Your task to perform on an android device: turn off sleep mode Image 0: 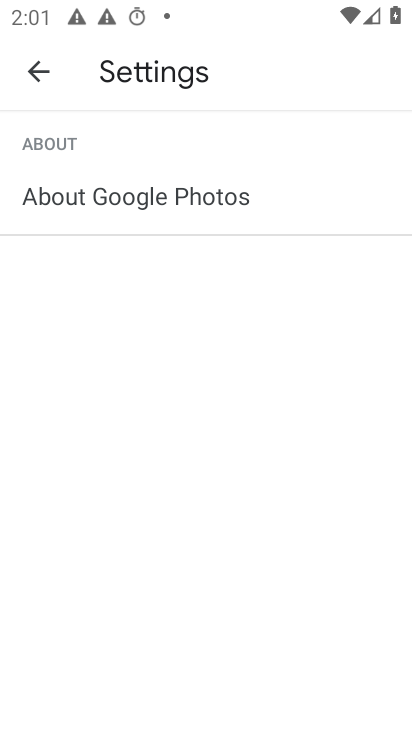
Step 0: press home button
Your task to perform on an android device: turn off sleep mode Image 1: 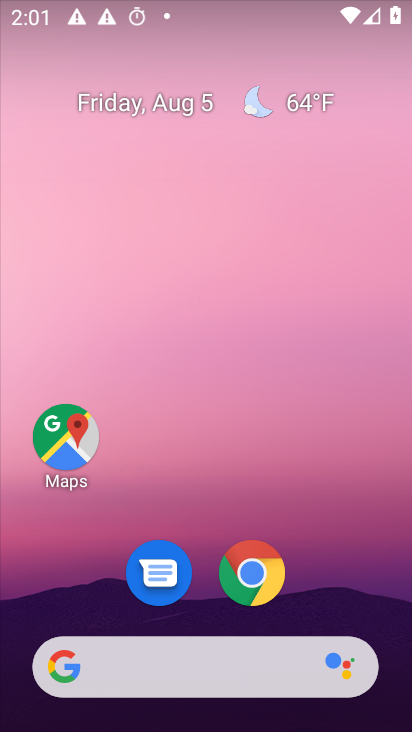
Step 1: drag from (342, 591) to (333, 162)
Your task to perform on an android device: turn off sleep mode Image 2: 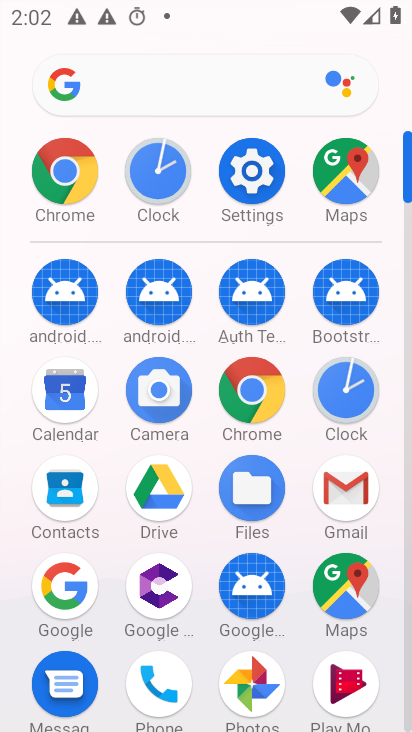
Step 2: click (262, 178)
Your task to perform on an android device: turn off sleep mode Image 3: 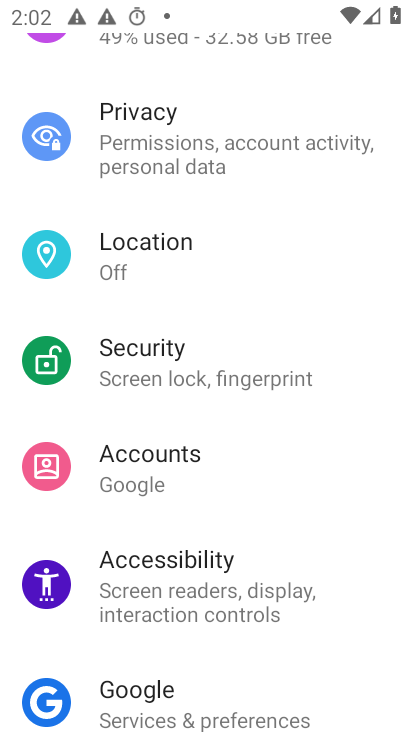
Step 3: drag from (356, 568) to (345, 388)
Your task to perform on an android device: turn off sleep mode Image 4: 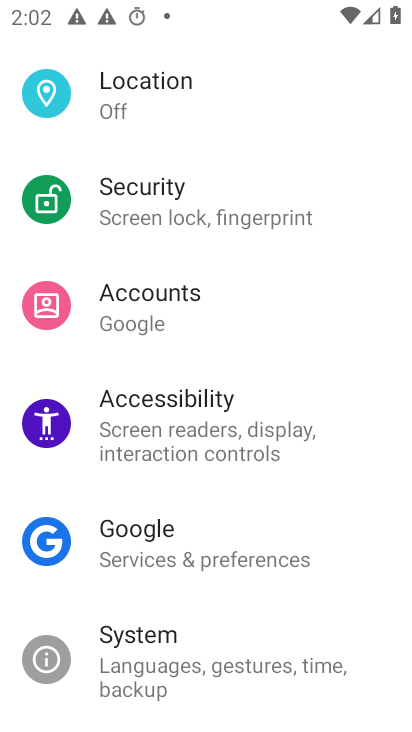
Step 4: drag from (338, 584) to (340, 336)
Your task to perform on an android device: turn off sleep mode Image 5: 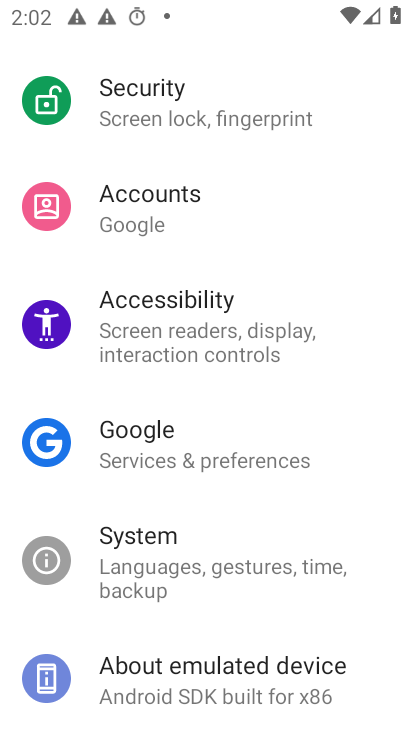
Step 5: drag from (354, 272) to (355, 392)
Your task to perform on an android device: turn off sleep mode Image 6: 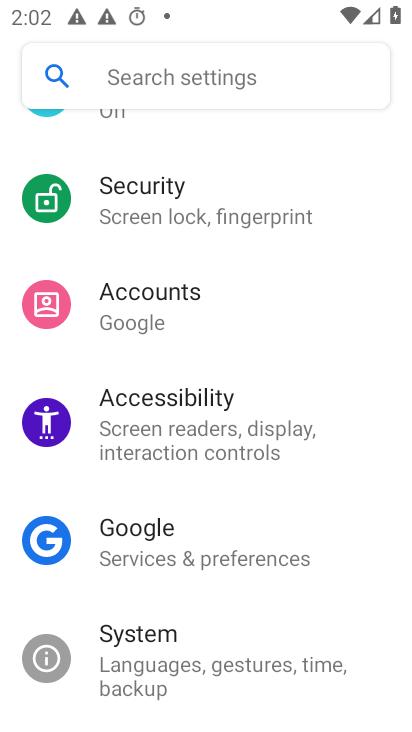
Step 6: drag from (356, 252) to (356, 412)
Your task to perform on an android device: turn off sleep mode Image 7: 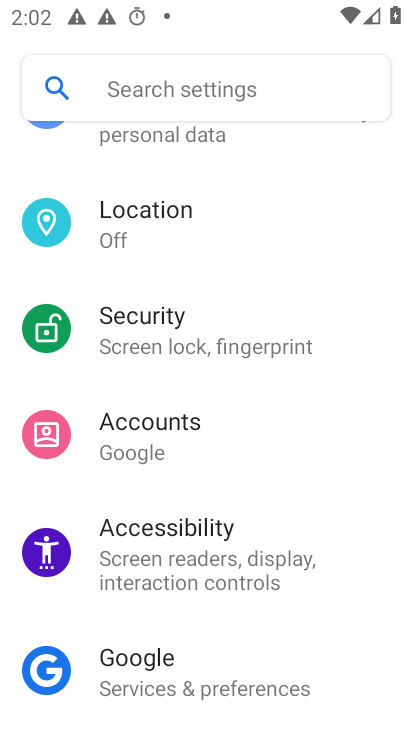
Step 7: drag from (359, 238) to (360, 423)
Your task to perform on an android device: turn off sleep mode Image 8: 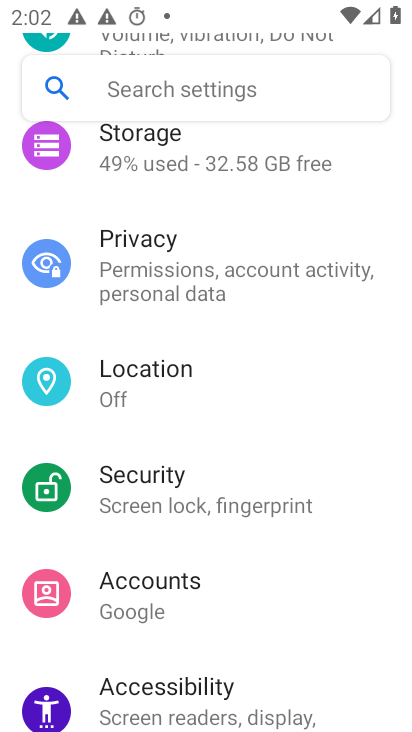
Step 8: drag from (361, 192) to (360, 387)
Your task to perform on an android device: turn off sleep mode Image 9: 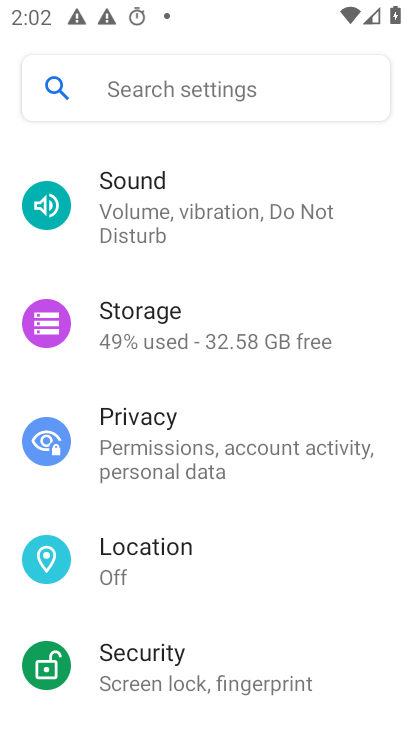
Step 9: drag from (360, 218) to (360, 386)
Your task to perform on an android device: turn off sleep mode Image 10: 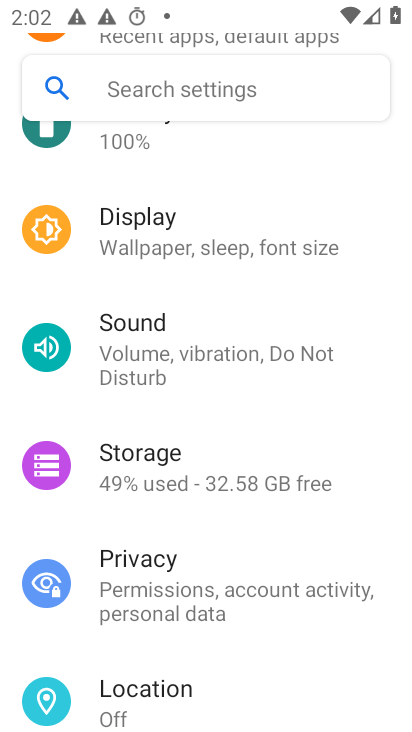
Step 10: drag from (370, 165) to (364, 349)
Your task to perform on an android device: turn off sleep mode Image 11: 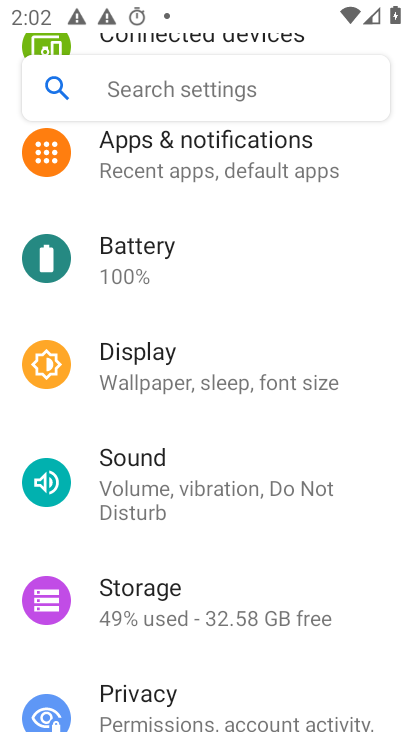
Step 11: drag from (364, 153) to (365, 318)
Your task to perform on an android device: turn off sleep mode Image 12: 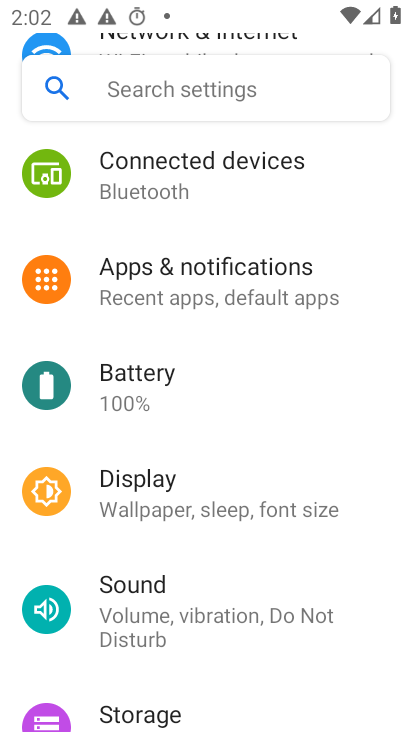
Step 12: drag from (364, 172) to (367, 296)
Your task to perform on an android device: turn off sleep mode Image 13: 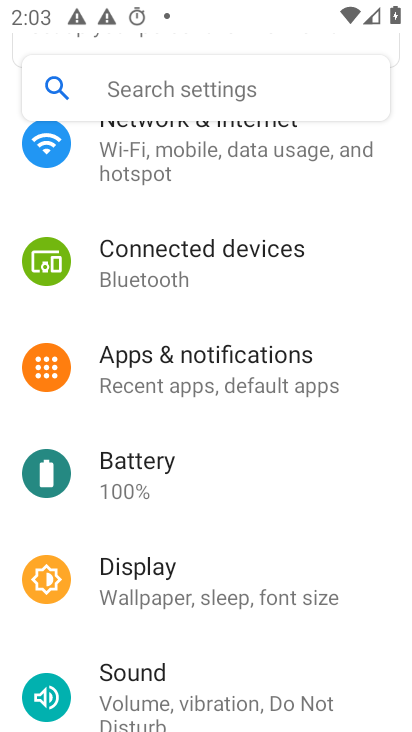
Step 13: click (192, 586)
Your task to perform on an android device: turn off sleep mode Image 14: 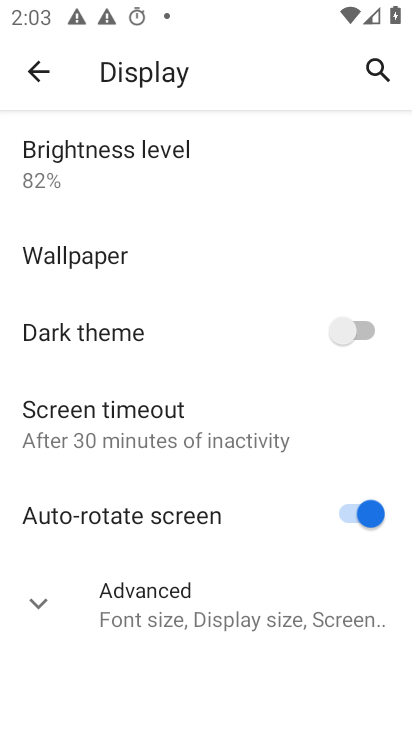
Step 14: click (238, 595)
Your task to perform on an android device: turn off sleep mode Image 15: 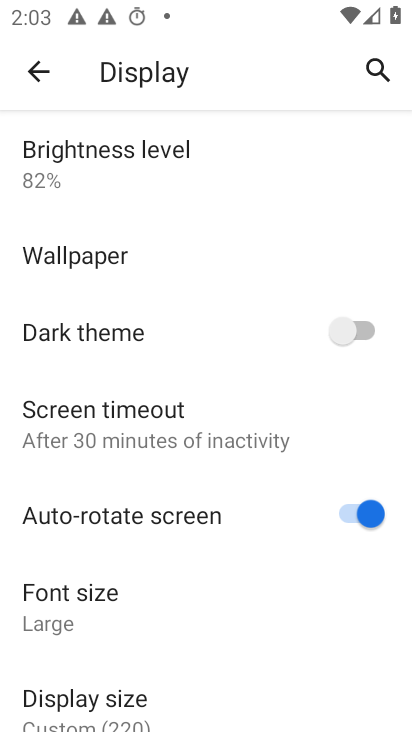
Step 15: task complete